Your task to perform on an android device: Clear the cart on newegg. Search for duracell triple a on newegg, select the first entry, add it to the cart, then select checkout. Image 0: 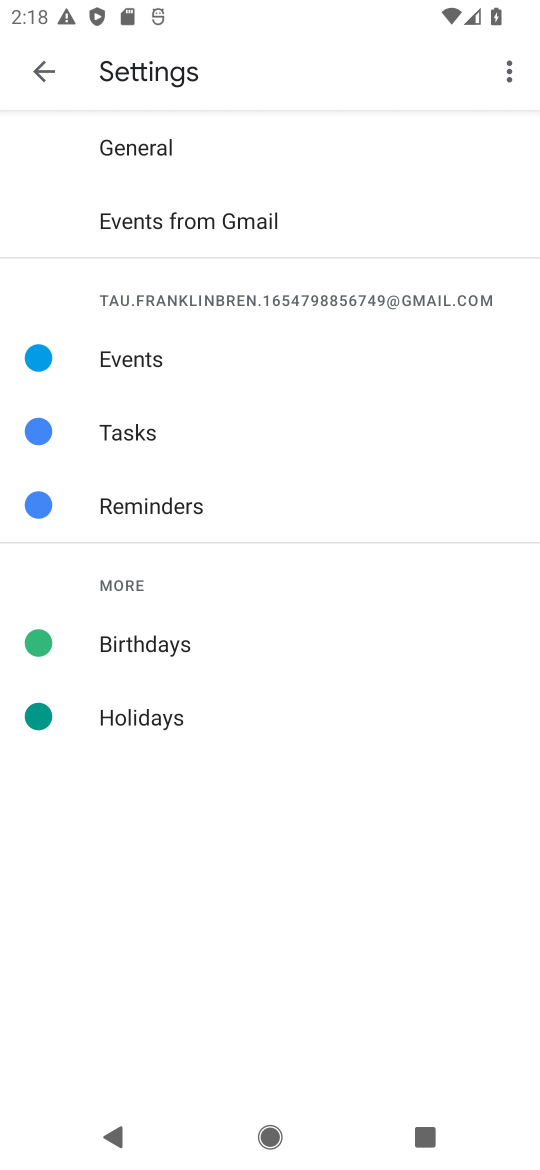
Step 0: press home button
Your task to perform on an android device: Clear the cart on newegg. Search for duracell triple a on newegg, select the first entry, add it to the cart, then select checkout. Image 1: 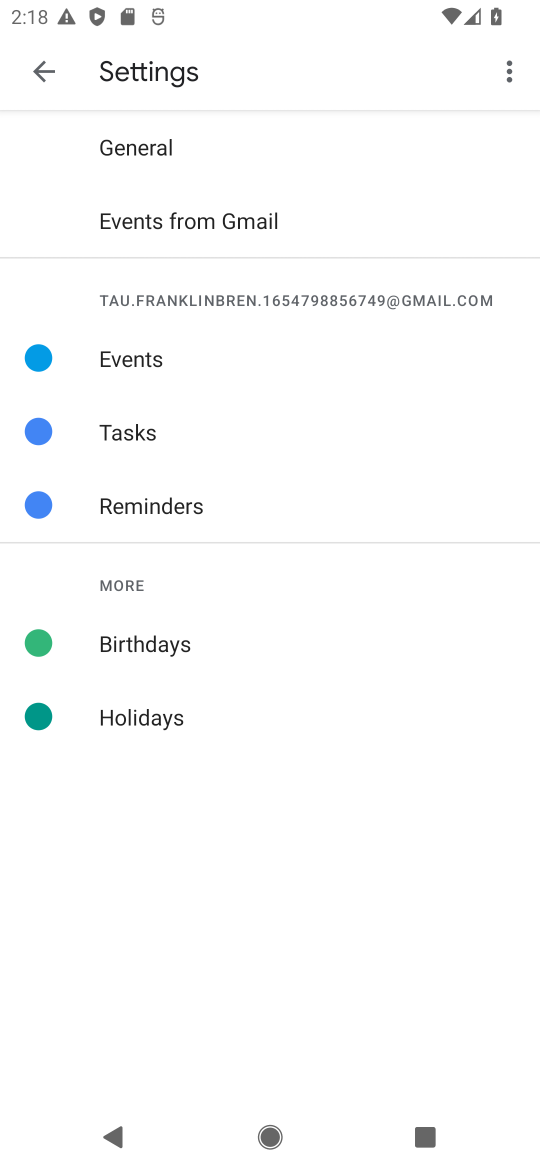
Step 1: press home button
Your task to perform on an android device: Clear the cart on newegg. Search for duracell triple a on newegg, select the first entry, add it to the cart, then select checkout. Image 2: 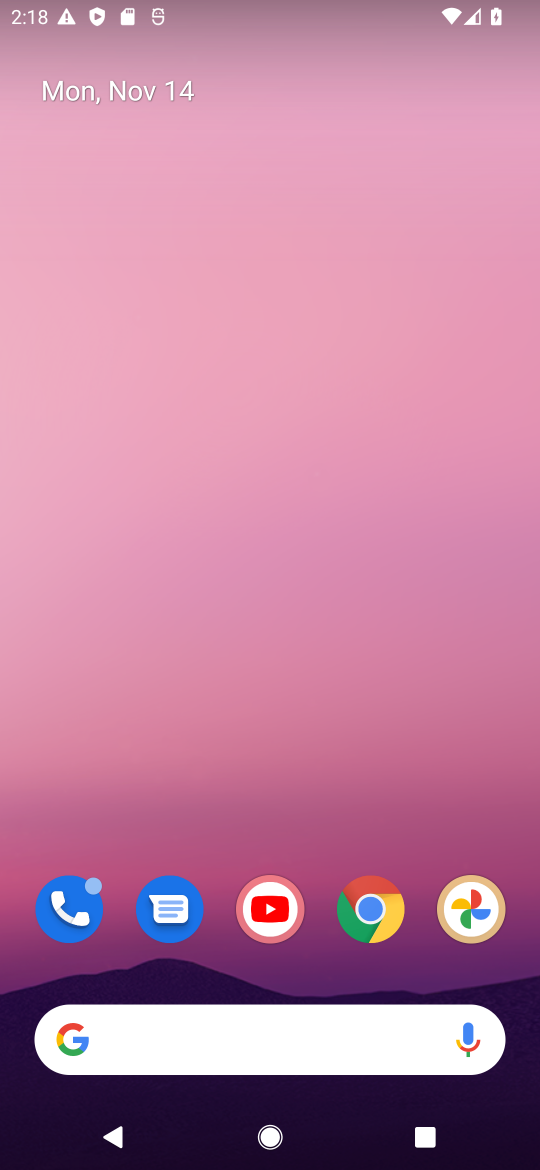
Step 2: drag from (307, 829) to (296, 7)
Your task to perform on an android device: Clear the cart on newegg. Search for duracell triple a on newegg, select the first entry, add it to the cart, then select checkout. Image 3: 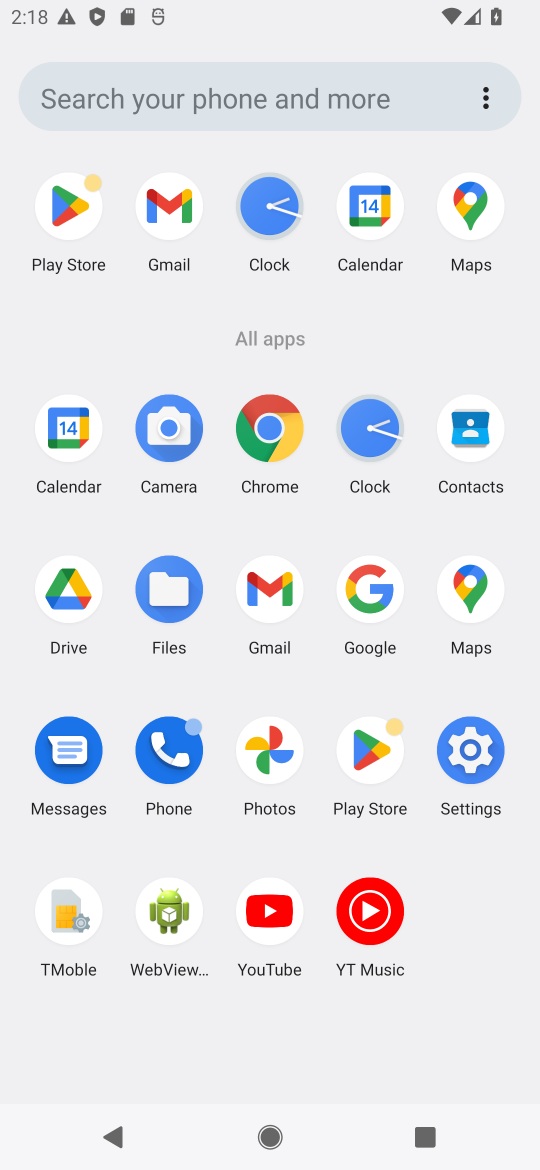
Step 3: click (270, 423)
Your task to perform on an android device: Clear the cart on newegg. Search for duracell triple a on newegg, select the first entry, add it to the cart, then select checkout. Image 4: 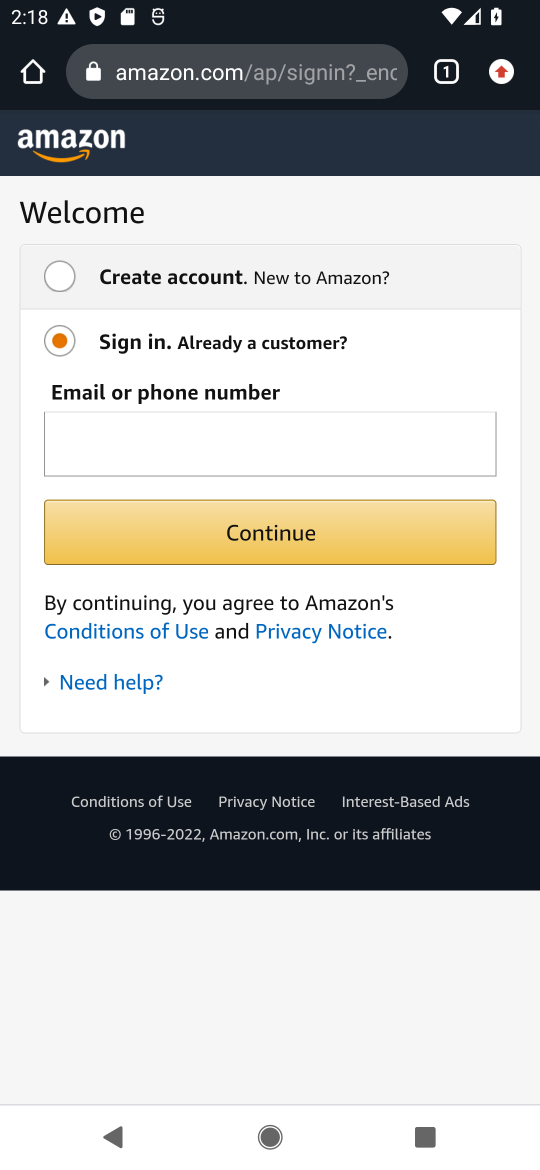
Step 4: click (245, 76)
Your task to perform on an android device: Clear the cart on newegg. Search for duracell triple a on newegg, select the first entry, add it to the cart, then select checkout. Image 5: 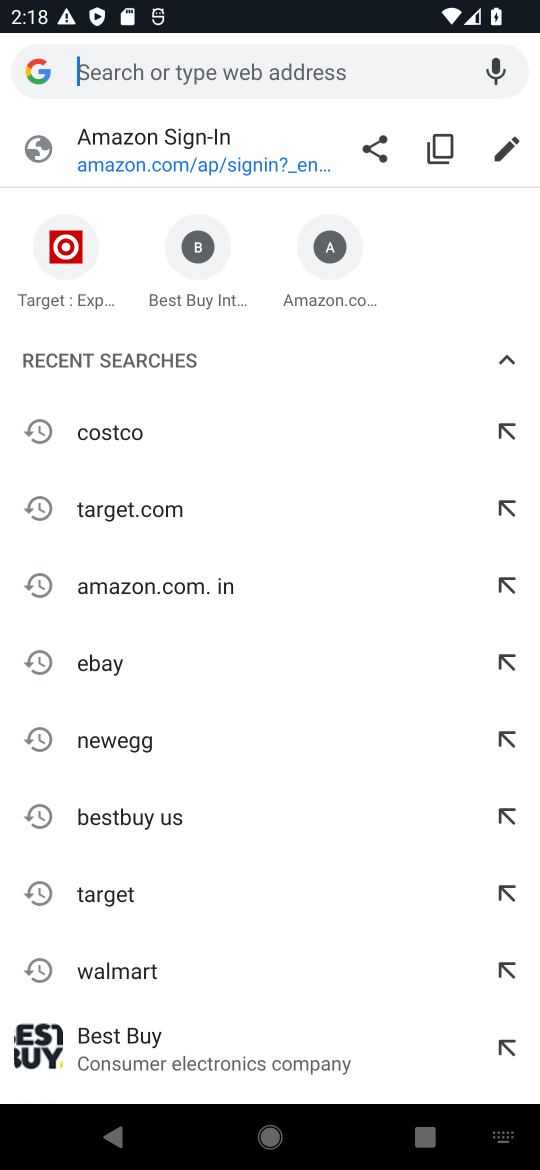
Step 5: type "newegg.com"
Your task to perform on an android device: Clear the cart on newegg. Search for duracell triple a on newegg, select the first entry, add it to the cart, then select checkout. Image 6: 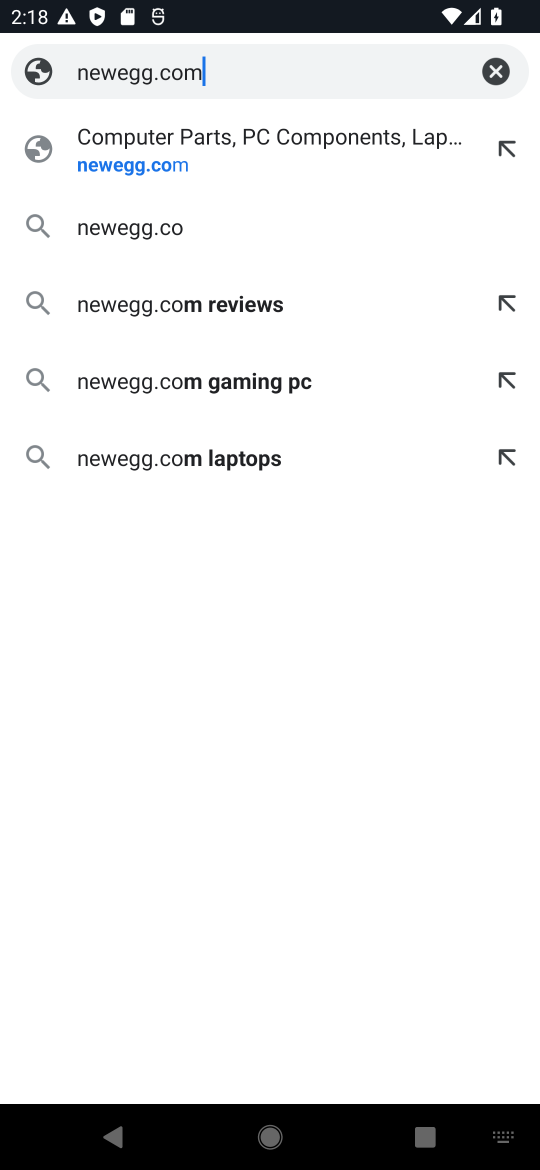
Step 6: press enter
Your task to perform on an android device: Clear the cart on newegg. Search for duracell triple a on newegg, select the first entry, add it to the cart, then select checkout. Image 7: 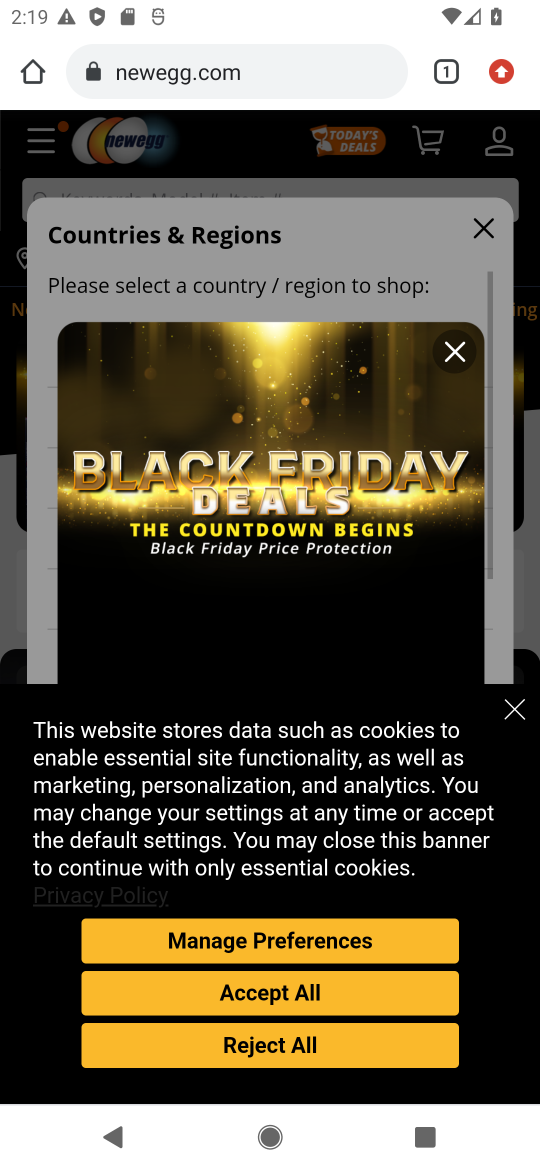
Step 7: click (487, 232)
Your task to perform on an android device: Clear the cart on newegg. Search for duracell triple a on newegg, select the first entry, add it to the cart, then select checkout. Image 8: 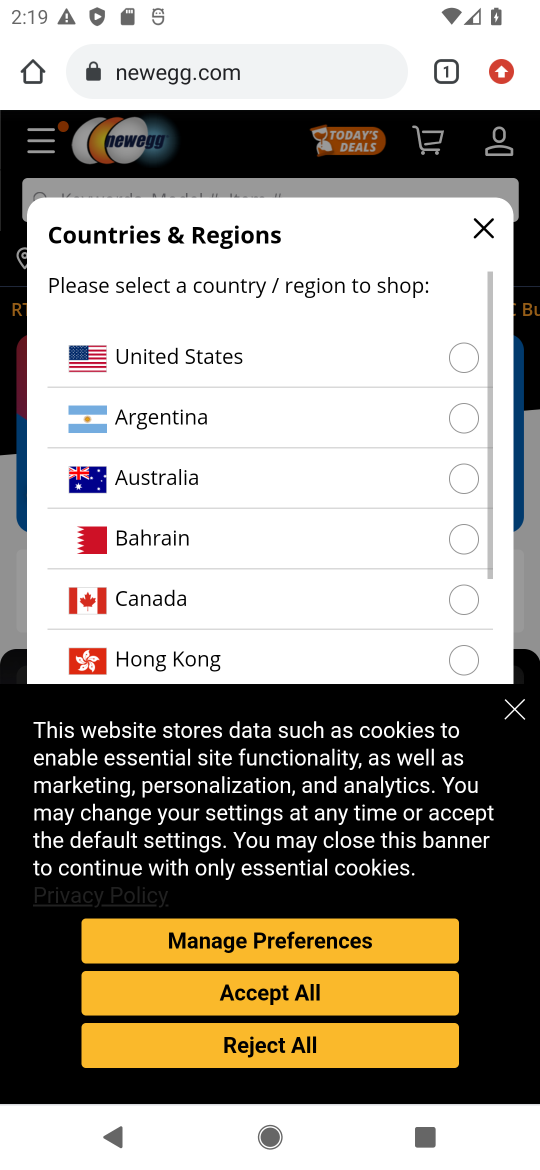
Step 8: click (491, 221)
Your task to perform on an android device: Clear the cart on newegg. Search for duracell triple a on newegg, select the first entry, add it to the cart, then select checkout. Image 9: 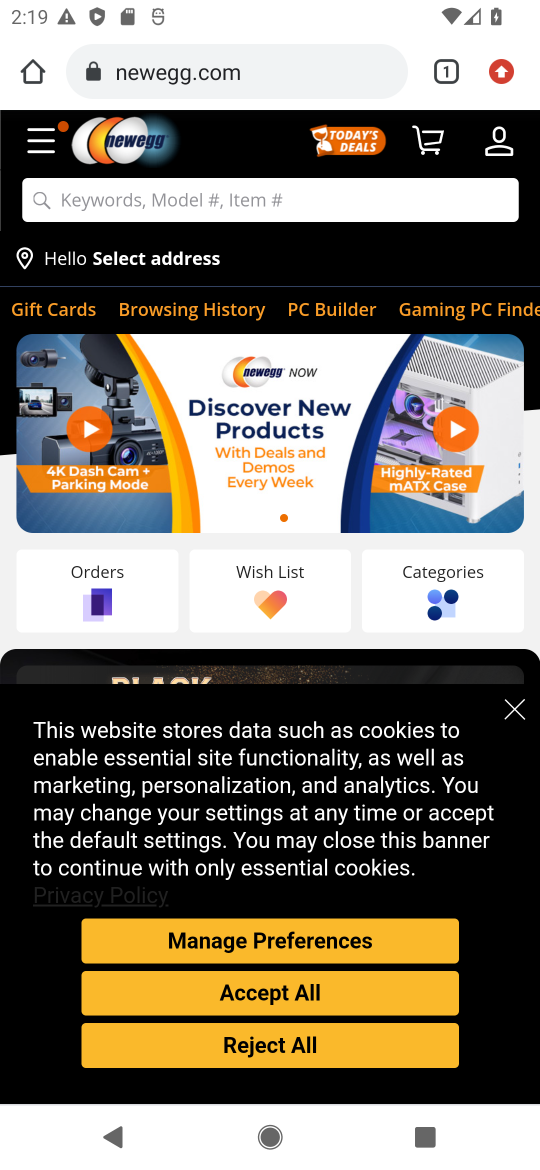
Step 9: click (436, 135)
Your task to perform on an android device: Clear the cart on newegg. Search for duracell triple a on newegg, select the first entry, add it to the cart, then select checkout. Image 10: 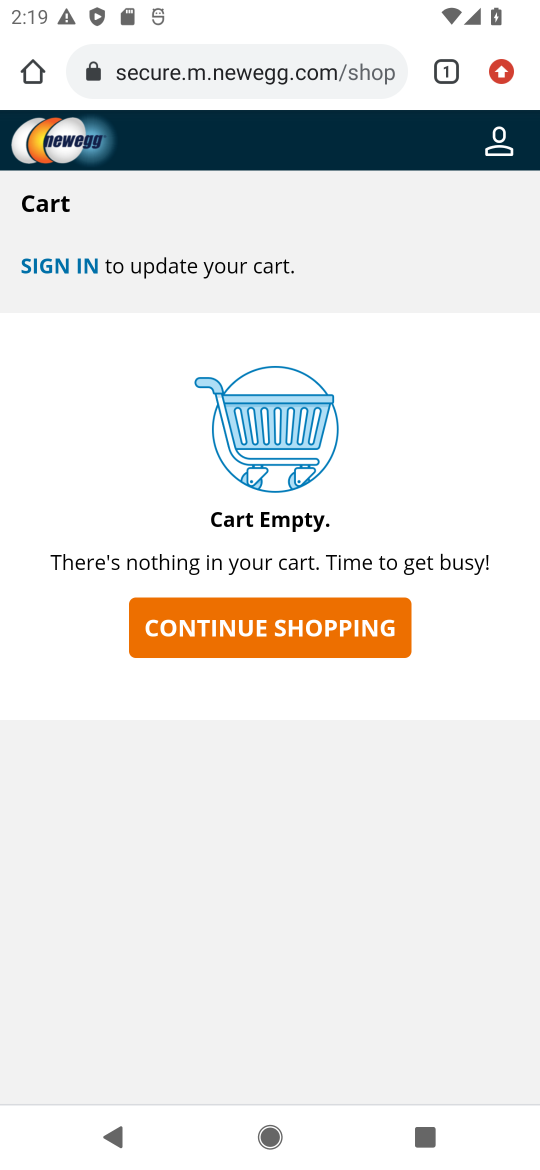
Step 10: click (301, 639)
Your task to perform on an android device: Clear the cart on newegg. Search for duracell triple a on newegg, select the first entry, add it to the cart, then select checkout. Image 11: 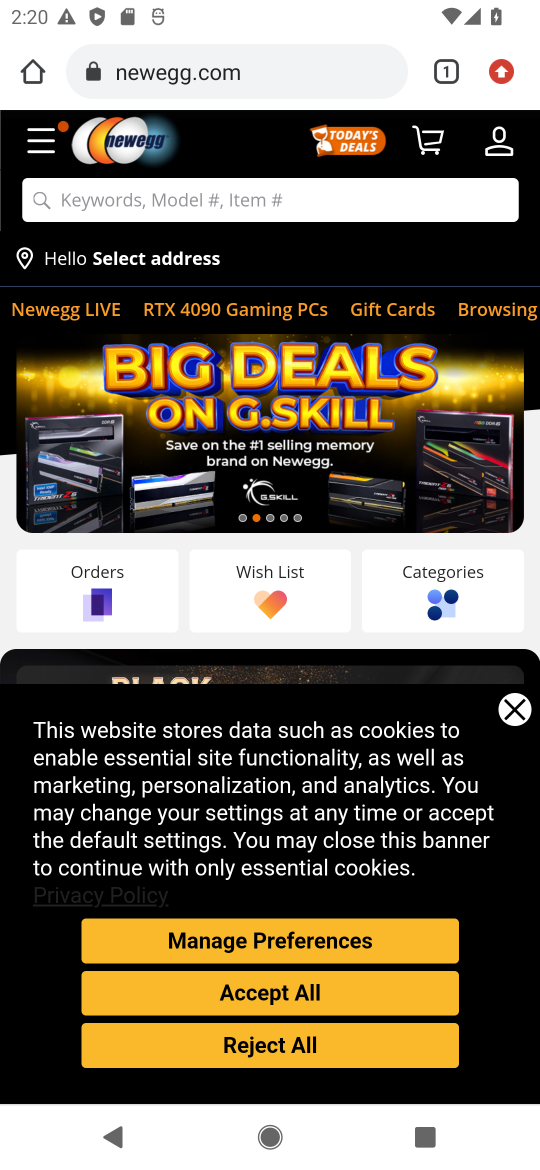
Step 11: click (257, 993)
Your task to perform on an android device: Clear the cart on newegg. Search for duracell triple a on newegg, select the first entry, add it to the cart, then select checkout. Image 12: 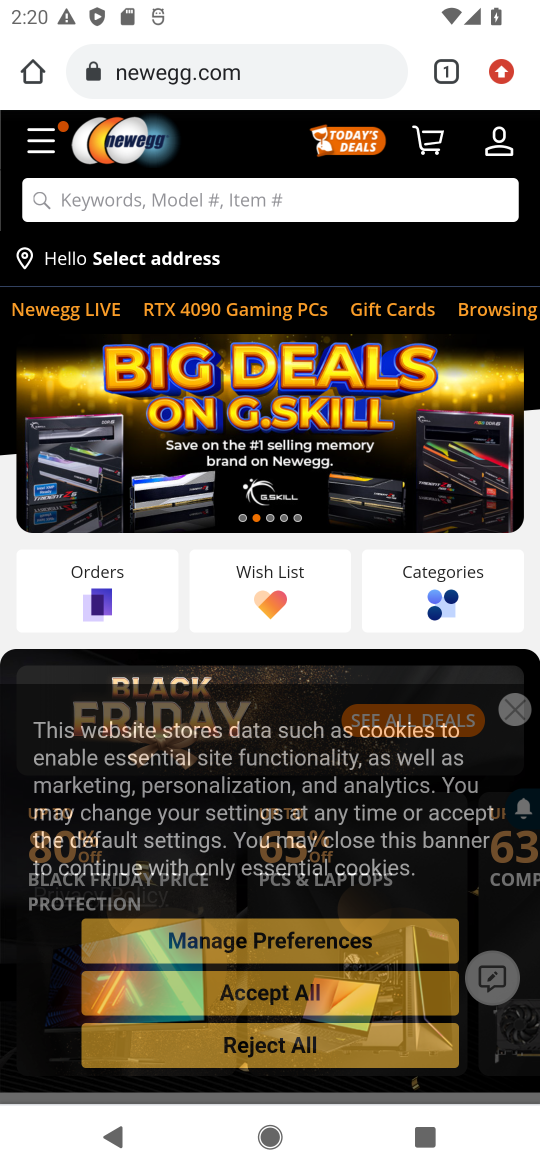
Step 12: click (345, 200)
Your task to perform on an android device: Clear the cart on newegg. Search for duracell triple a on newegg, select the first entry, add it to the cart, then select checkout. Image 13: 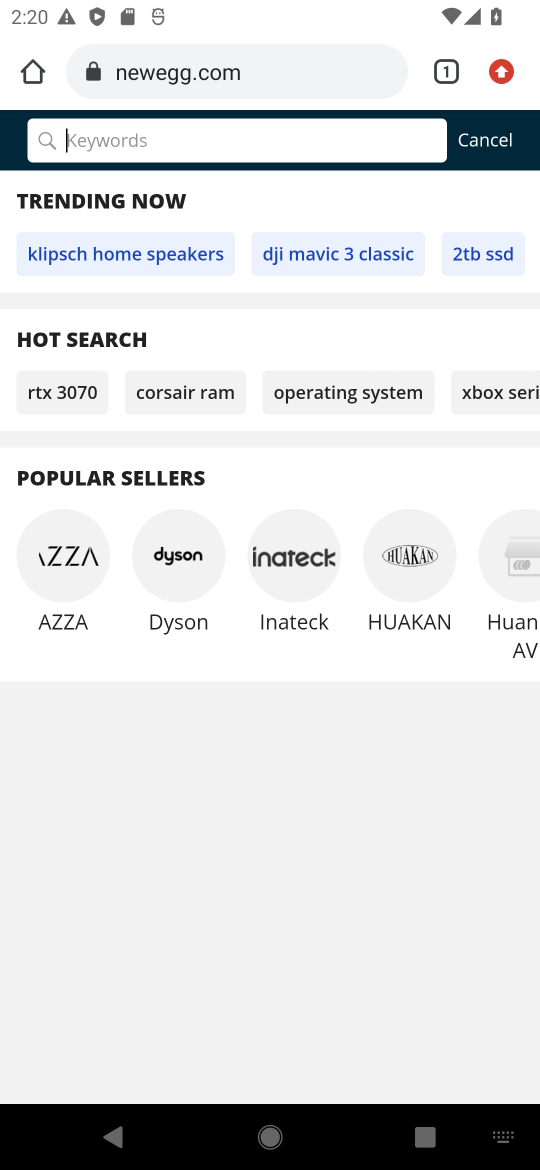
Step 13: type "duracell triple a"
Your task to perform on an android device: Clear the cart on newegg. Search for duracell triple a on newegg, select the first entry, add it to the cart, then select checkout. Image 14: 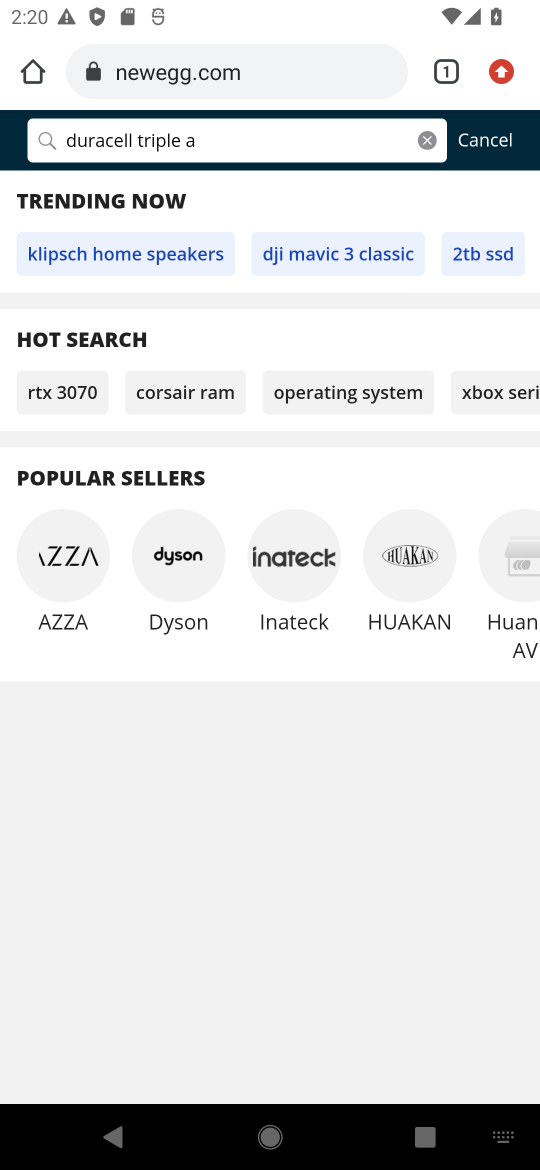
Step 14: press enter
Your task to perform on an android device: Clear the cart on newegg. Search for duracell triple a on newegg, select the first entry, add it to the cart, then select checkout. Image 15: 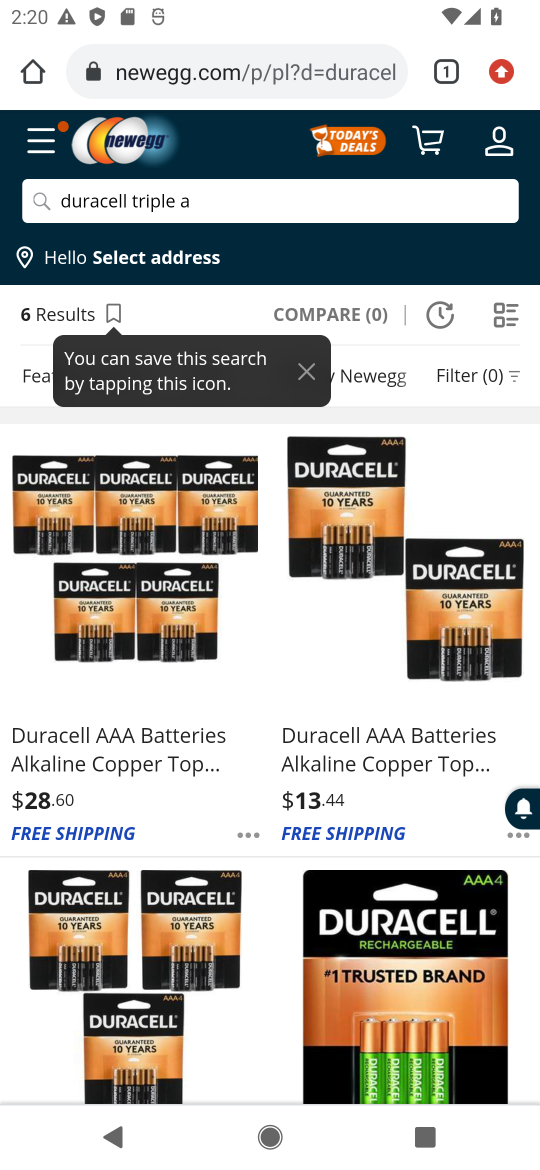
Step 15: click (151, 624)
Your task to perform on an android device: Clear the cart on newegg. Search for duracell triple a on newegg, select the first entry, add it to the cart, then select checkout. Image 16: 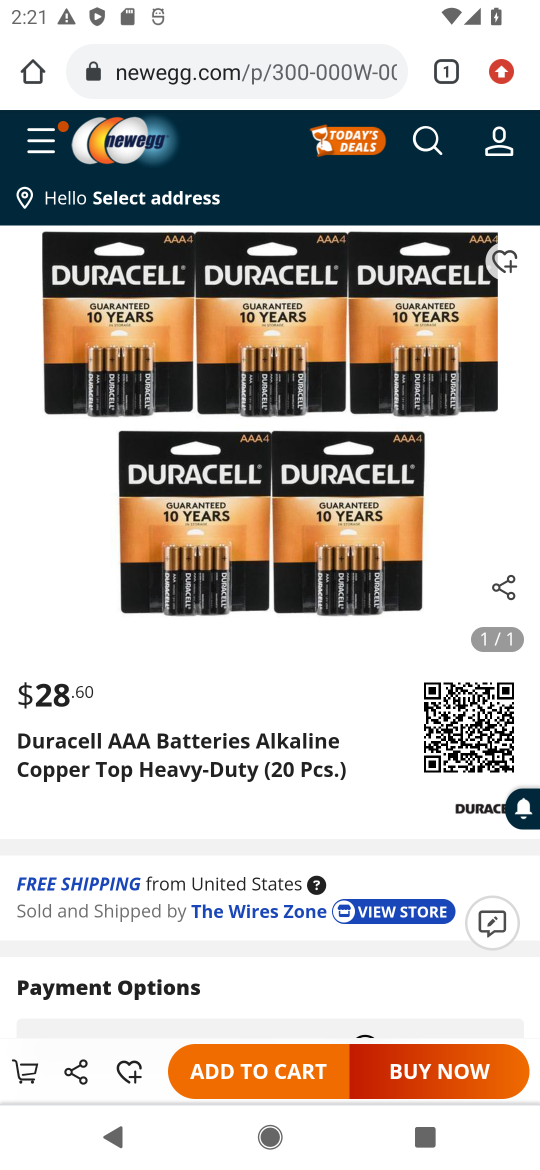
Step 16: click (266, 1066)
Your task to perform on an android device: Clear the cart on newegg. Search for duracell triple a on newegg, select the first entry, add it to the cart, then select checkout. Image 17: 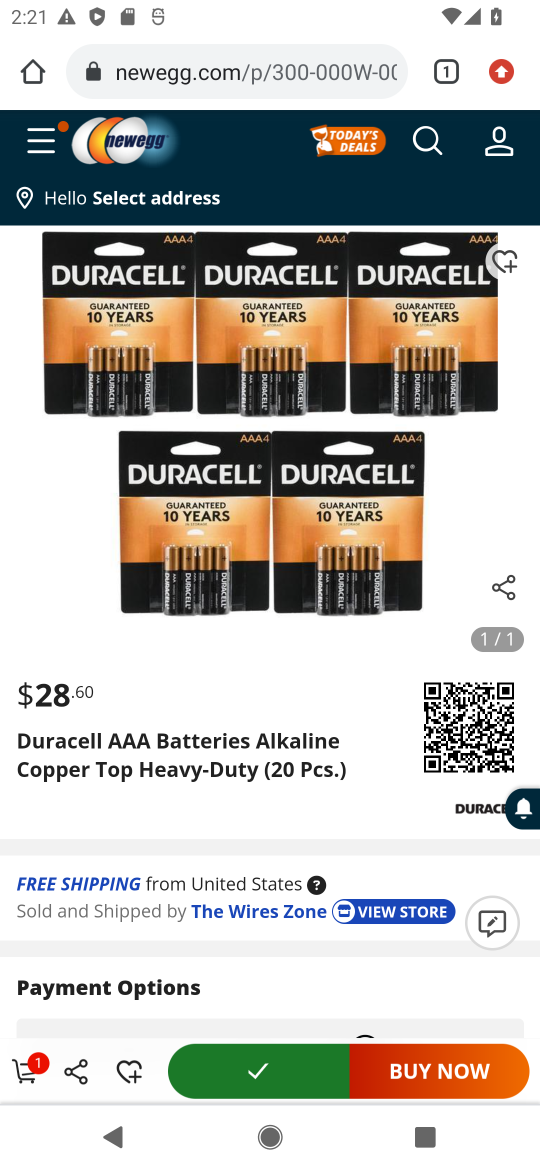
Step 17: click (35, 1067)
Your task to perform on an android device: Clear the cart on newegg. Search for duracell triple a on newegg, select the first entry, add it to the cart, then select checkout. Image 18: 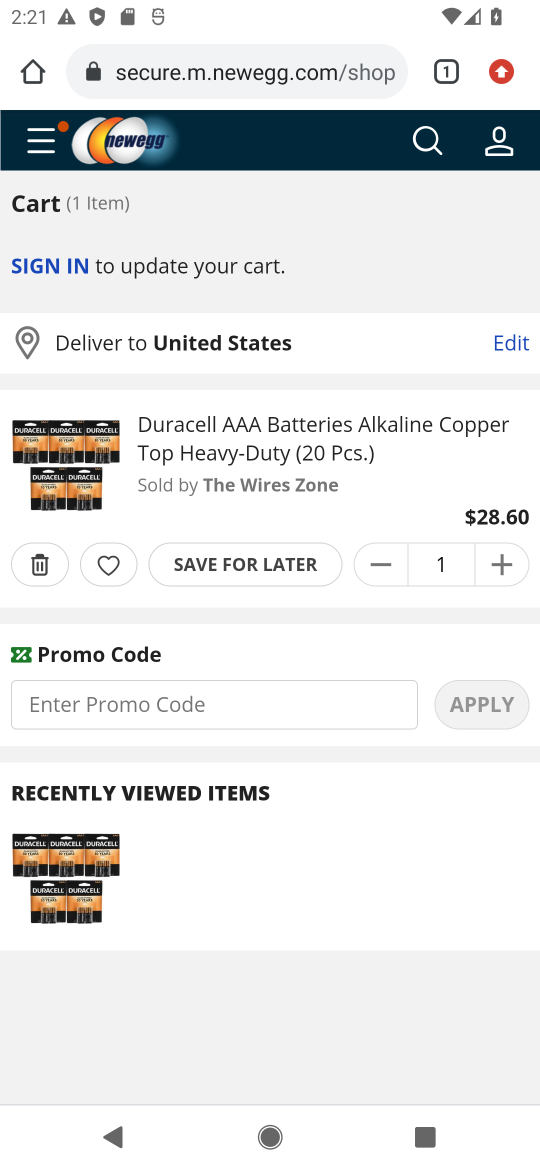
Step 18: drag from (279, 830) to (376, 337)
Your task to perform on an android device: Clear the cart on newegg. Search for duracell triple a on newegg, select the first entry, add it to the cart, then select checkout. Image 19: 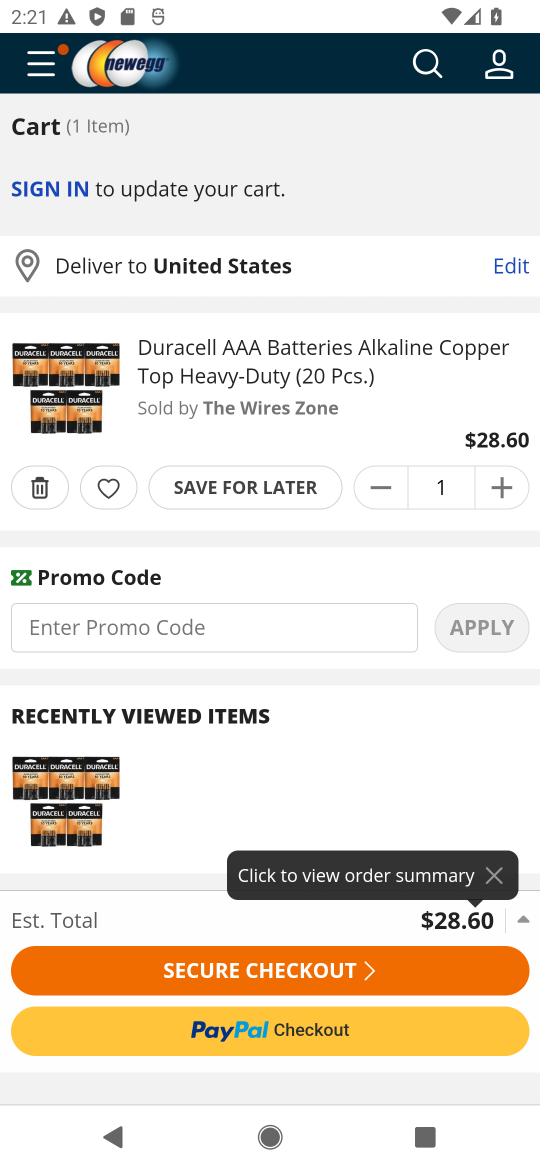
Step 19: click (387, 967)
Your task to perform on an android device: Clear the cart on newegg. Search for duracell triple a on newegg, select the first entry, add it to the cart, then select checkout. Image 20: 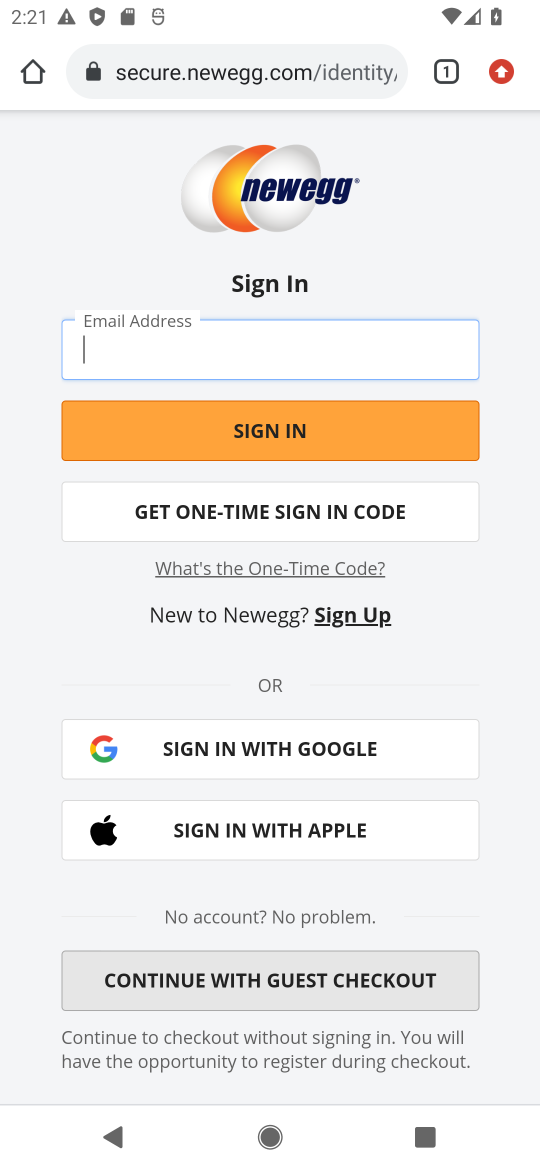
Step 20: task complete